Your task to perform on an android device: open app "LinkedIn" Image 0: 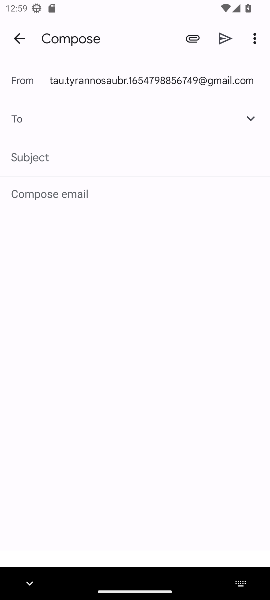
Step 0: press home button
Your task to perform on an android device: open app "LinkedIn" Image 1: 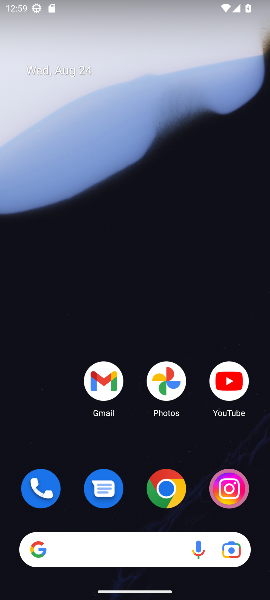
Step 1: drag from (131, 459) to (131, 8)
Your task to perform on an android device: open app "LinkedIn" Image 2: 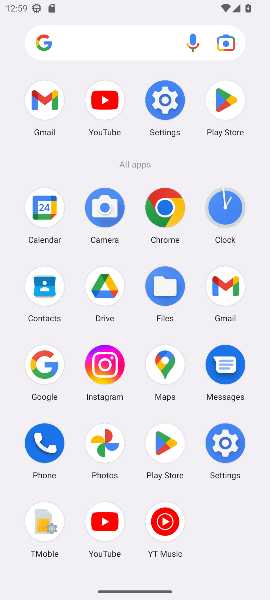
Step 2: click (217, 91)
Your task to perform on an android device: open app "LinkedIn" Image 3: 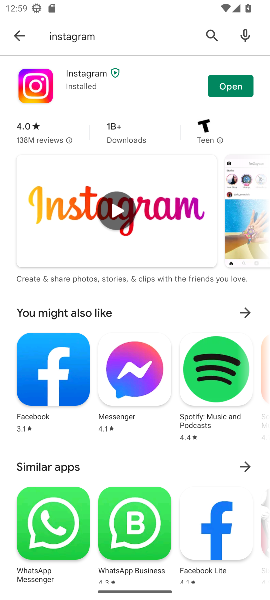
Step 3: click (22, 38)
Your task to perform on an android device: open app "LinkedIn" Image 4: 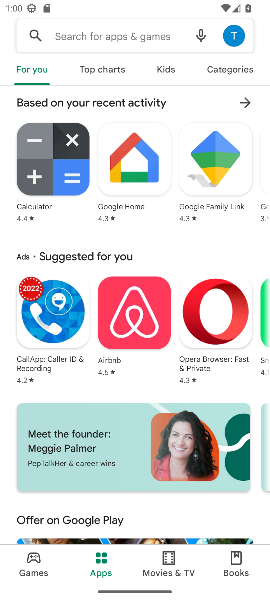
Step 4: click (98, 38)
Your task to perform on an android device: open app "LinkedIn" Image 5: 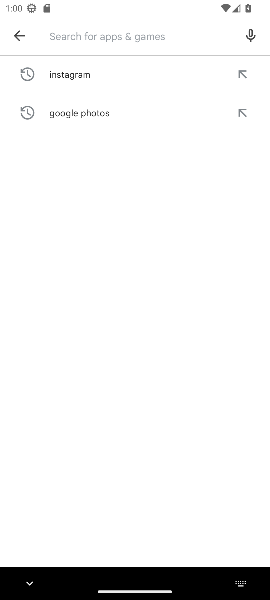
Step 5: type "LinkedIn"
Your task to perform on an android device: open app "LinkedIn" Image 6: 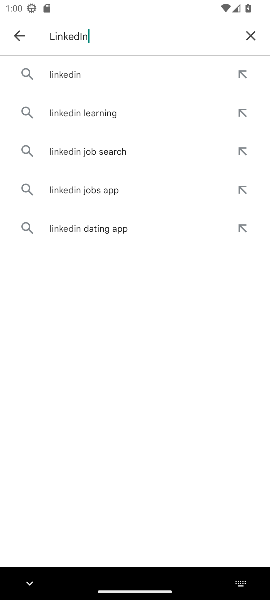
Step 6: click (64, 78)
Your task to perform on an android device: open app "LinkedIn" Image 7: 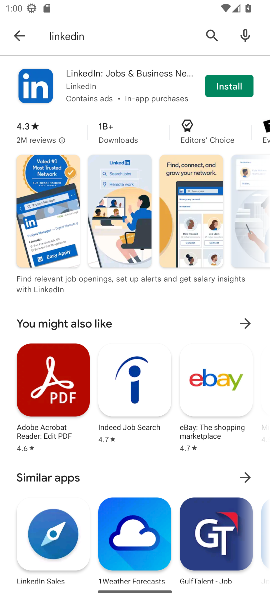
Step 7: click (220, 85)
Your task to perform on an android device: open app "LinkedIn" Image 8: 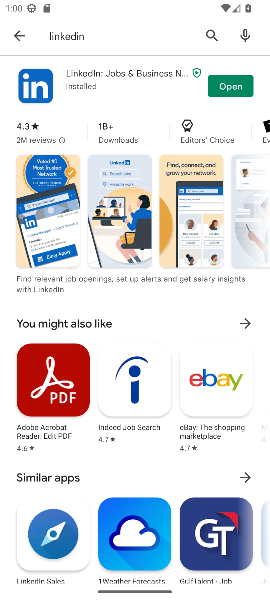
Step 8: click (220, 85)
Your task to perform on an android device: open app "LinkedIn" Image 9: 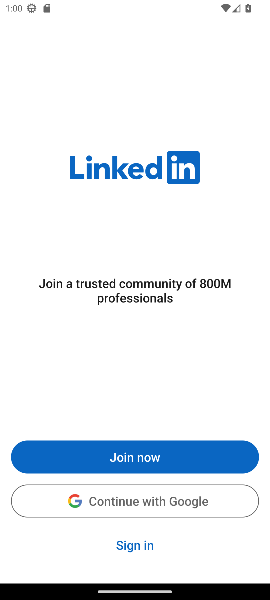
Step 9: task complete